Your task to perform on an android device: turn on notifications settings in the gmail app Image 0: 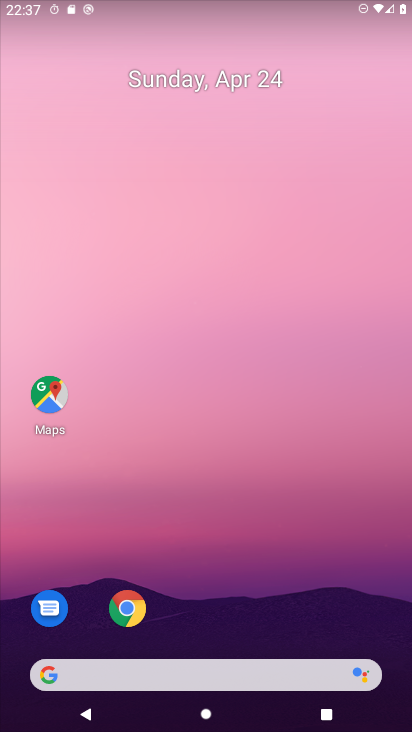
Step 0: drag from (286, 589) to (332, 67)
Your task to perform on an android device: turn on notifications settings in the gmail app Image 1: 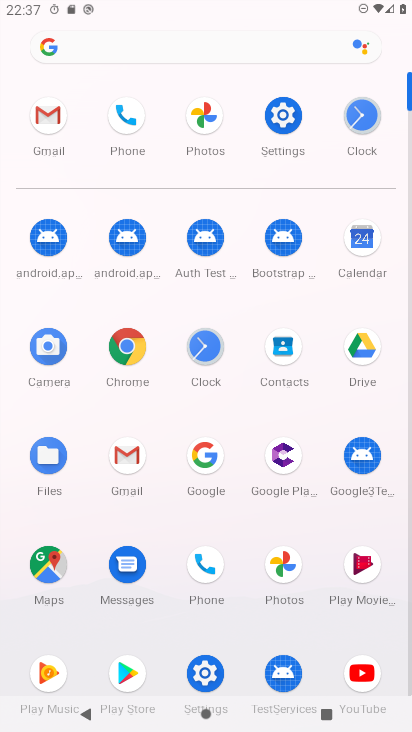
Step 1: click (42, 108)
Your task to perform on an android device: turn on notifications settings in the gmail app Image 2: 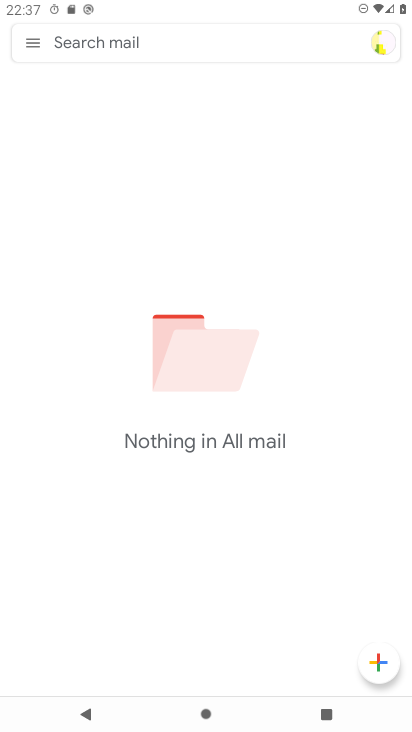
Step 2: click (33, 41)
Your task to perform on an android device: turn on notifications settings in the gmail app Image 3: 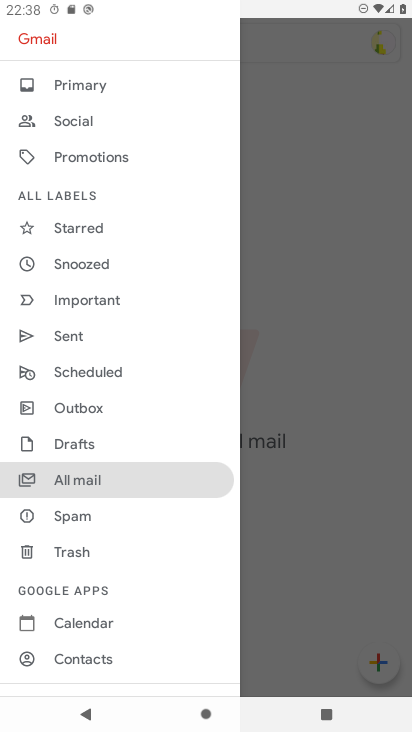
Step 3: drag from (133, 535) to (160, 268)
Your task to perform on an android device: turn on notifications settings in the gmail app Image 4: 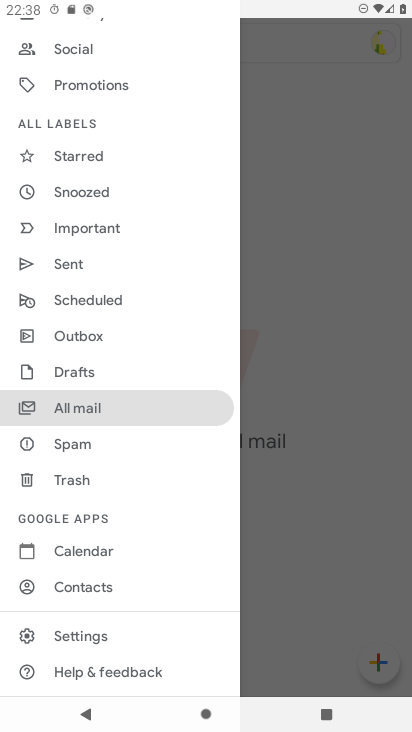
Step 4: click (91, 630)
Your task to perform on an android device: turn on notifications settings in the gmail app Image 5: 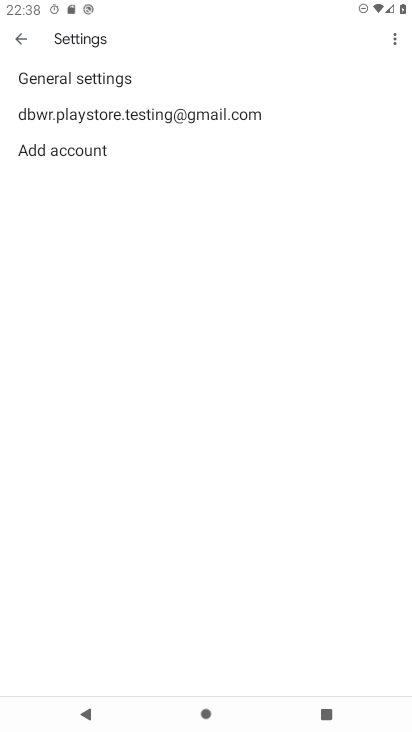
Step 5: click (117, 75)
Your task to perform on an android device: turn on notifications settings in the gmail app Image 6: 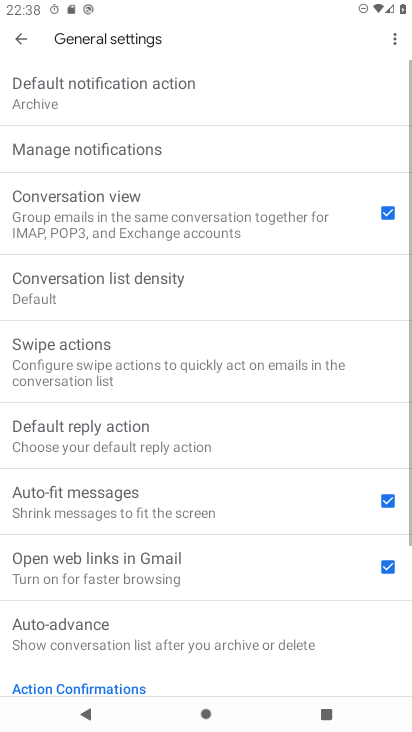
Step 6: click (193, 141)
Your task to perform on an android device: turn on notifications settings in the gmail app Image 7: 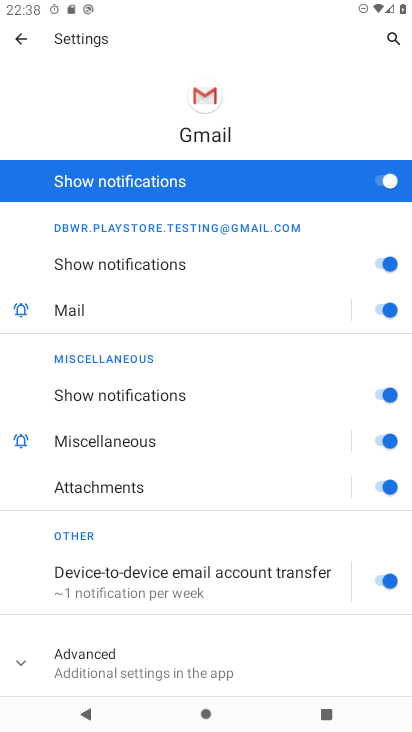
Step 7: task complete